Your task to perform on an android device: toggle priority inbox in the gmail app Image 0: 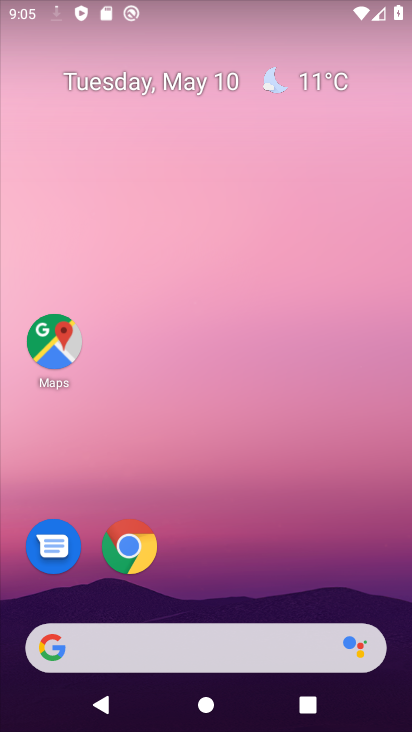
Step 0: drag from (177, 547) to (308, 119)
Your task to perform on an android device: toggle priority inbox in the gmail app Image 1: 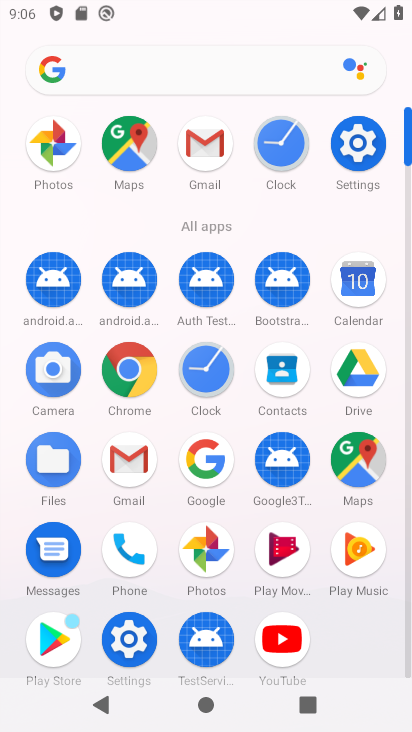
Step 1: click (132, 455)
Your task to perform on an android device: toggle priority inbox in the gmail app Image 2: 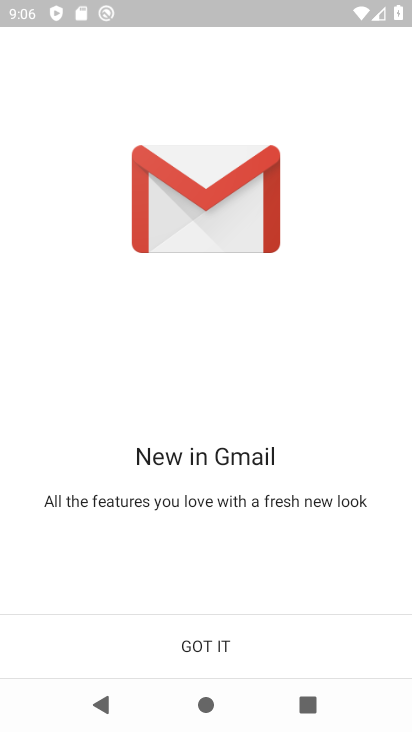
Step 2: click (194, 629)
Your task to perform on an android device: toggle priority inbox in the gmail app Image 3: 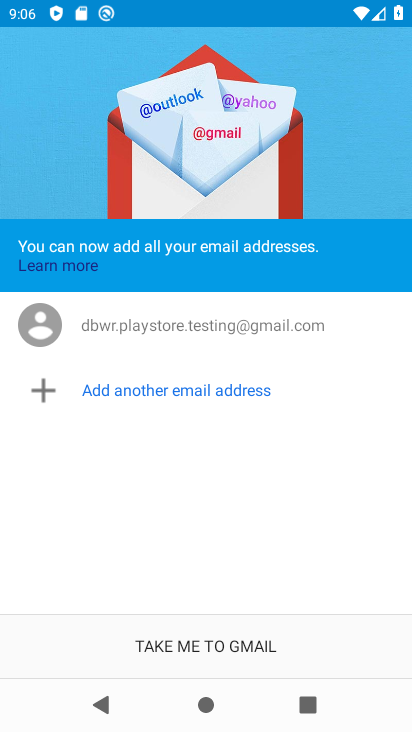
Step 3: click (193, 650)
Your task to perform on an android device: toggle priority inbox in the gmail app Image 4: 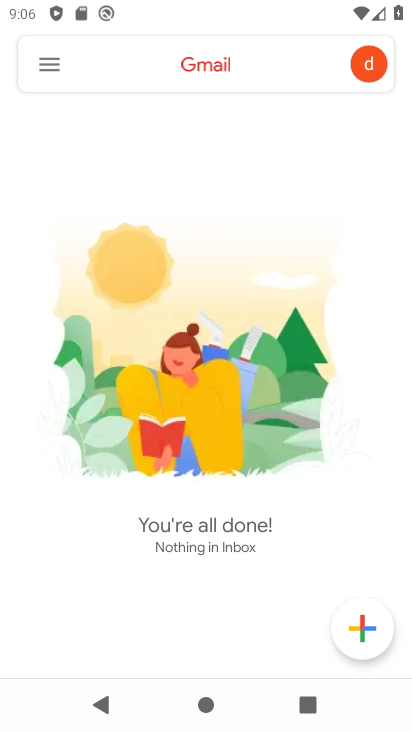
Step 4: click (48, 65)
Your task to perform on an android device: toggle priority inbox in the gmail app Image 5: 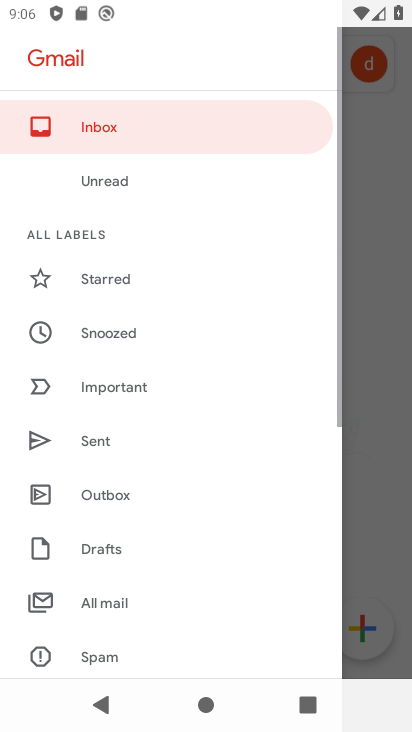
Step 5: drag from (133, 593) to (195, 86)
Your task to perform on an android device: toggle priority inbox in the gmail app Image 6: 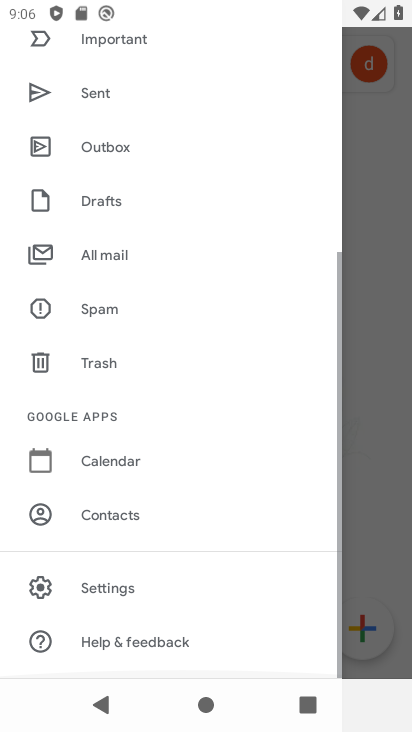
Step 6: click (119, 581)
Your task to perform on an android device: toggle priority inbox in the gmail app Image 7: 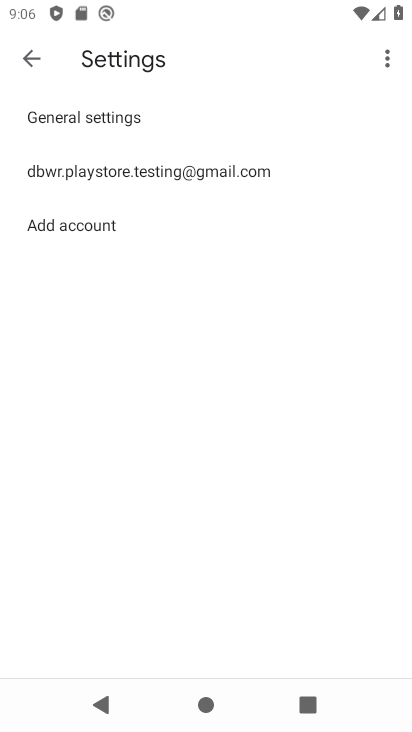
Step 7: click (135, 167)
Your task to perform on an android device: toggle priority inbox in the gmail app Image 8: 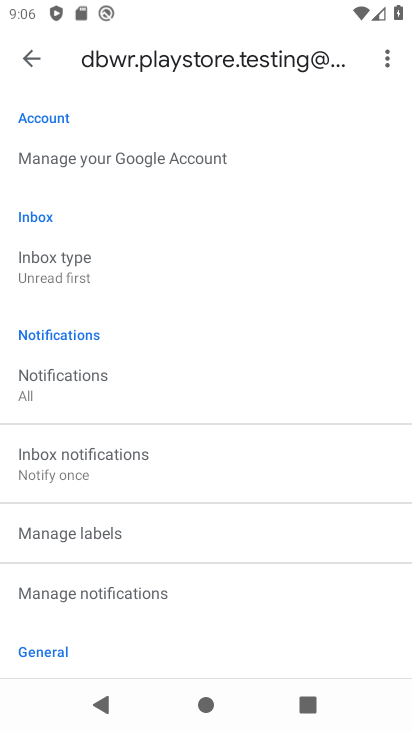
Step 8: click (74, 269)
Your task to perform on an android device: toggle priority inbox in the gmail app Image 9: 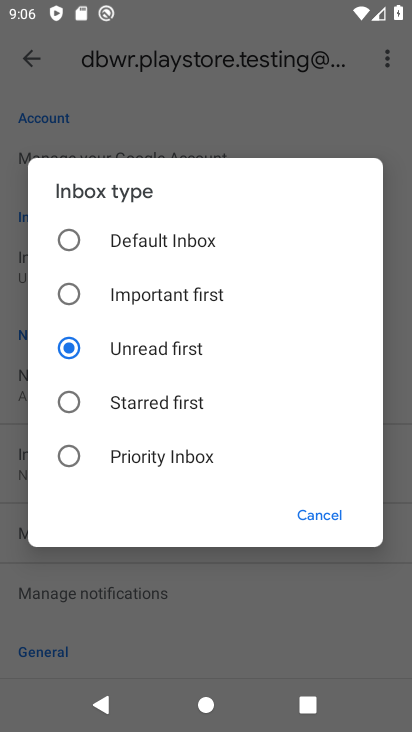
Step 9: click (70, 454)
Your task to perform on an android device: toggle priority inbox in the gmail app Image 10: 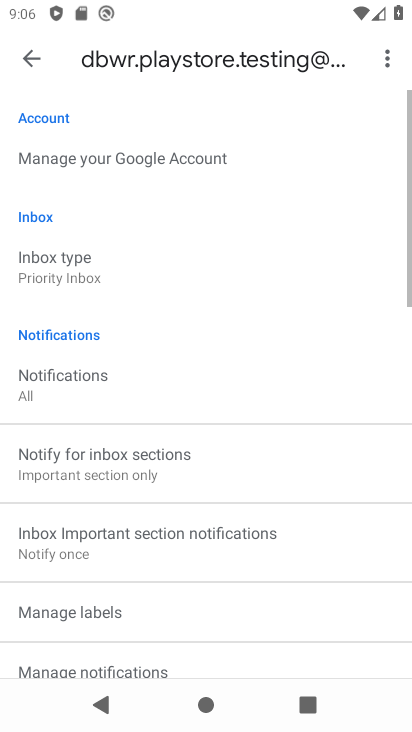
Step 10: task complete